Your task to perform on an android device: Open accessibility settings Image 0: 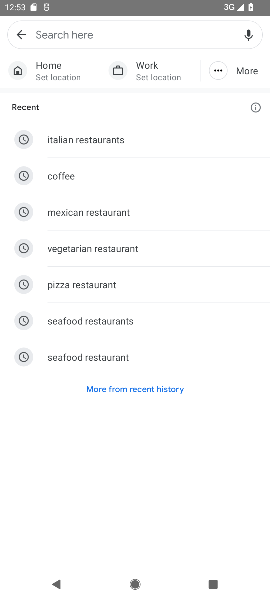
Step 0: press home button
Your task to perform on an android device: Open accessibility settings Image 1: 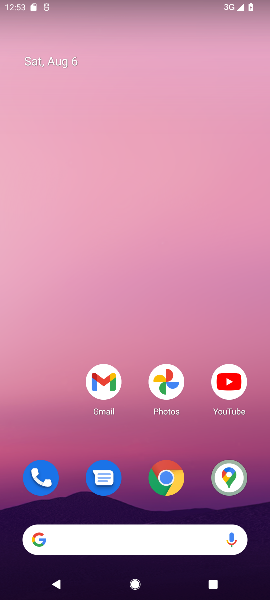
Step 1: drag from (124, 534) to (137, 306)
Your task to perform on an android device: Open accessibility settings Image 2: 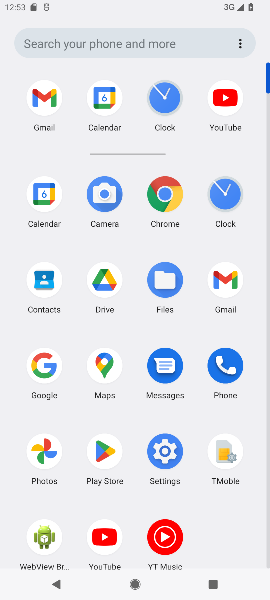
Step 2: click (151, 170)
Your task to perform on an android device: Open accessibility settings Image 3: 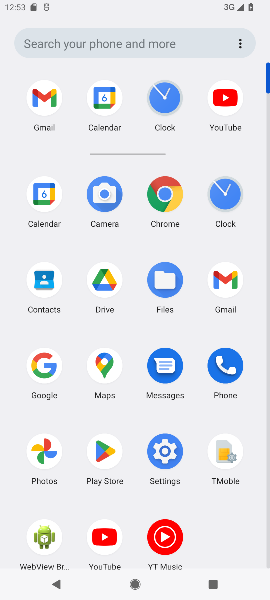
Step 3: click (160, 500)
Your task to perform on an android device: Open accessibility settings Image 4: 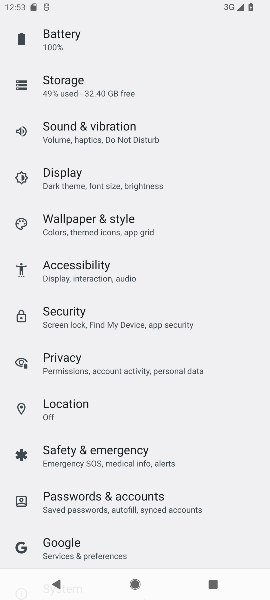
Step 4: click (78, 400)
Your task to perform on an android device: Open accessibility settings Image 5: 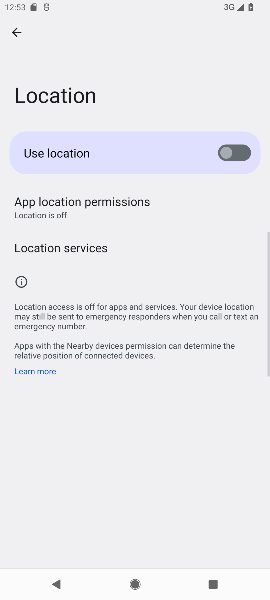
Step 5: click (23, 32)
Your task to perform on an android device: Open accessibility settings Image 6: 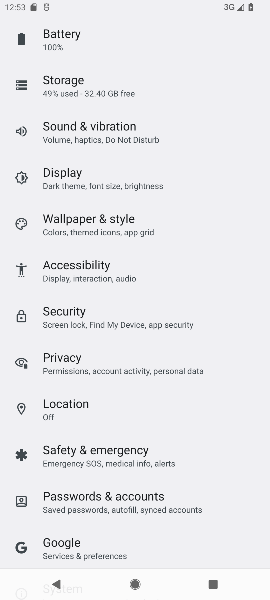
Step 6: click (77, 269)
Your task to perform on an android device: Open accessibility settings Image 7: 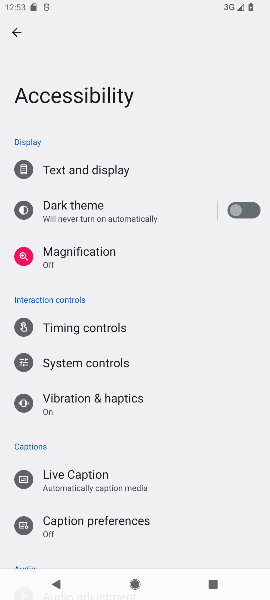
Step 7: task complete